Your task to perform on an android device: open app "Viber Messenger" (install if not already installed) Image 0: 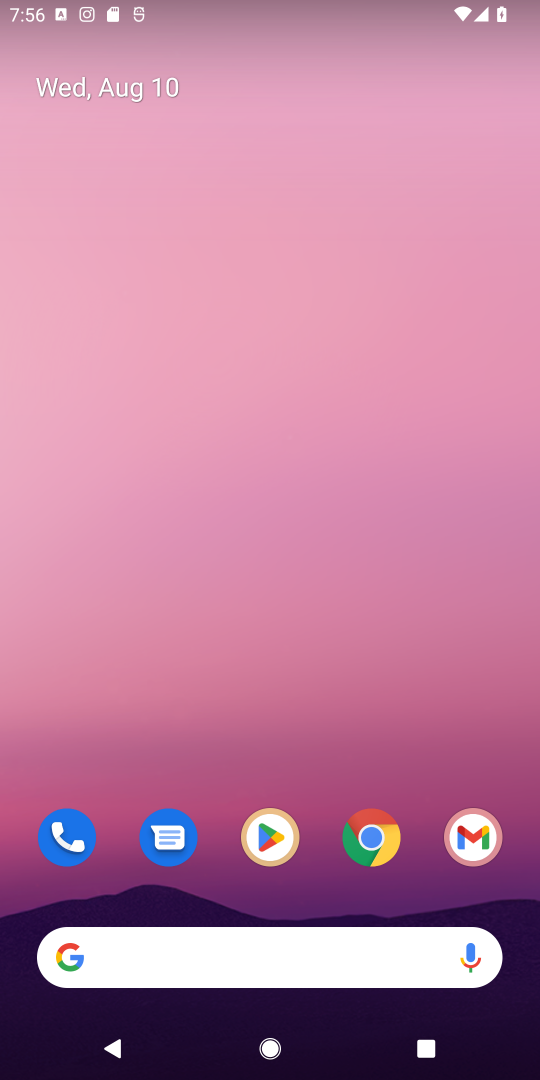
Step 0: click (262, 838)
Your task to perform on an android device: open app "Viber Messenger" (install if not already installed) Image 1: 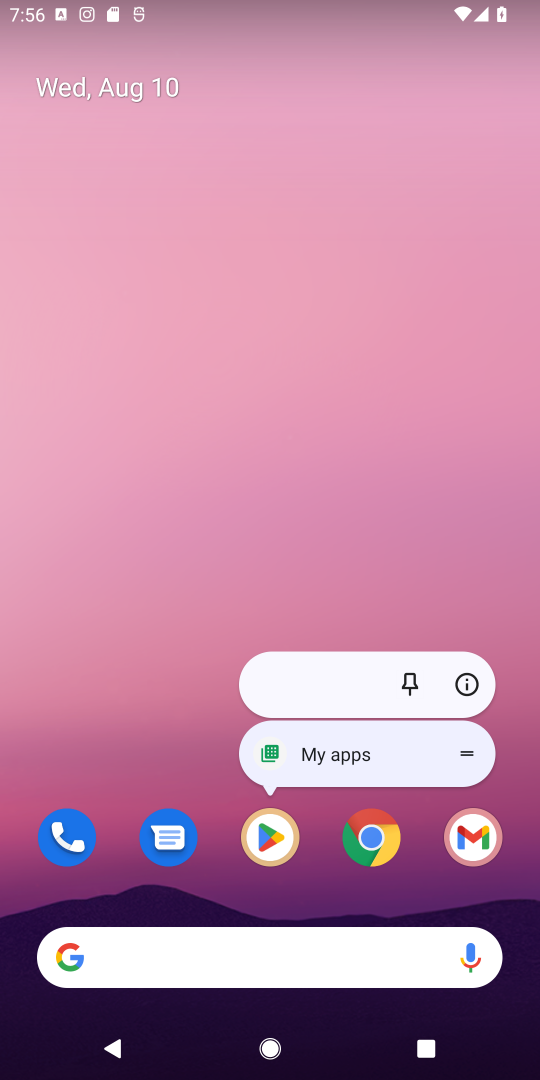
Step 1: click (262, 840)
Your task to perform on an android device: open app "Viber Messenger" (install if not already installed) Image 2: 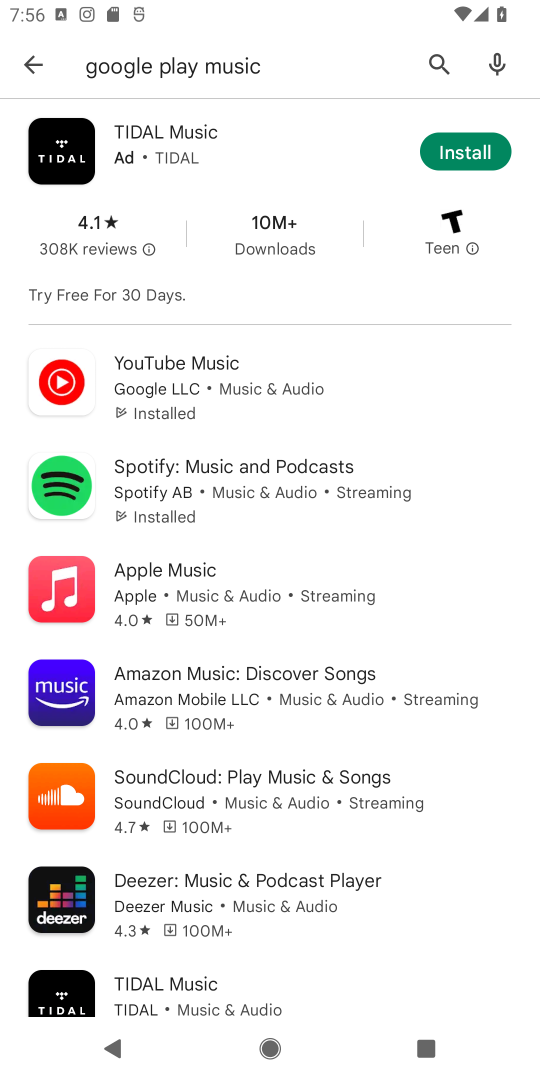
Step 2: click (434, 59)
Your task to perform on an android device: open app "Viber Messenger" (install if not already installed) Image 3: 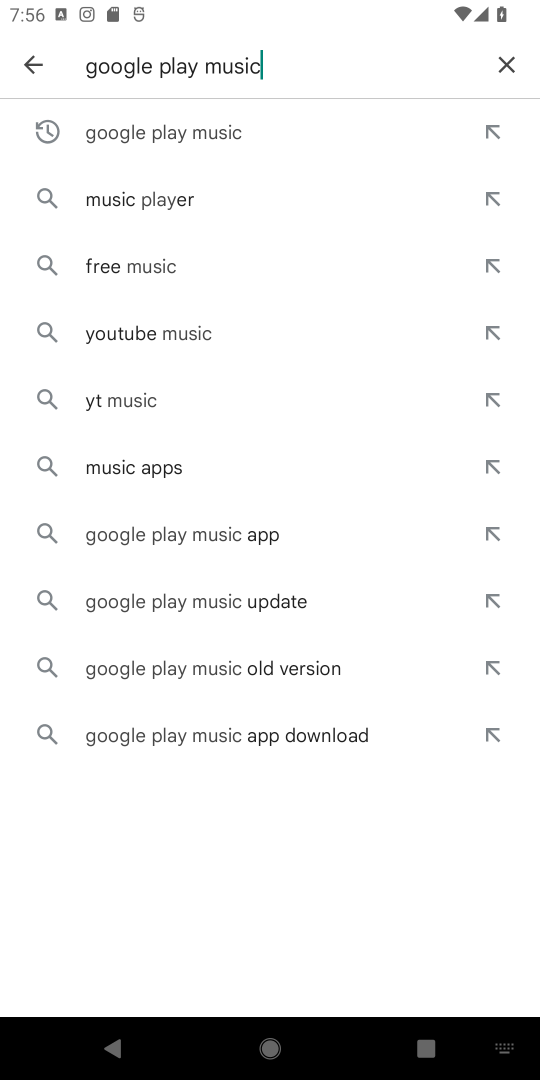
Step 3: click (515, 60)
Your task to perform on an android device: open app "Viber Messenger" (install if not already installed) Image 4: 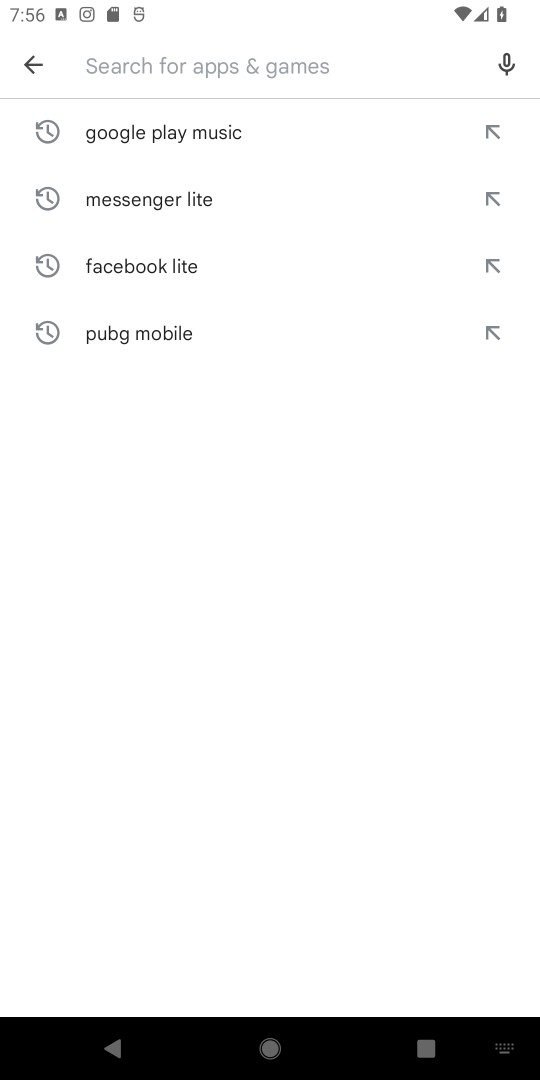
Step 4: type "Viber Messenger"
Your task to perform on an android device: open app "Viber Messenger" (install if not already installed) Image 5: 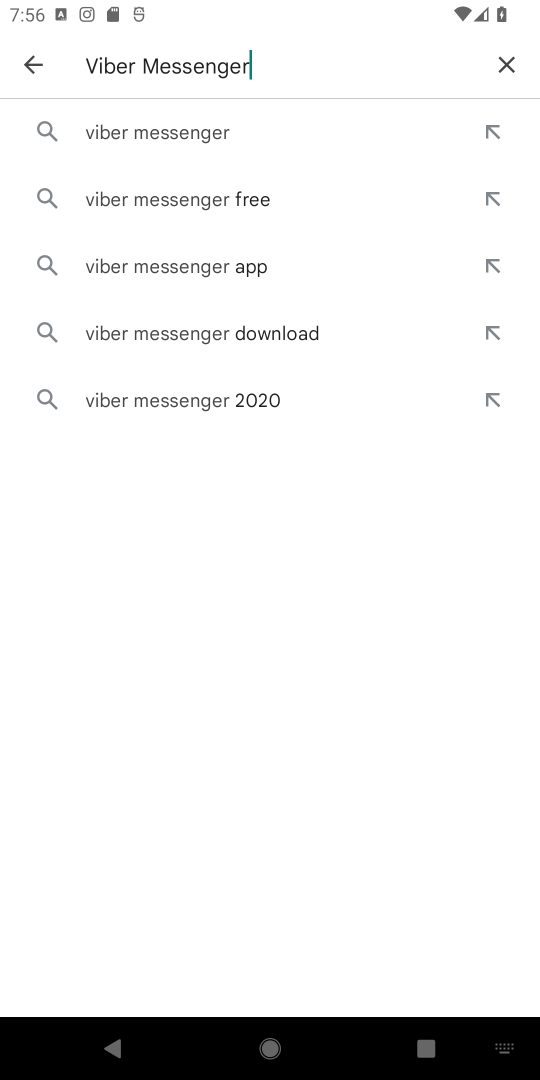
Step 5: click (209, 128)
Your task to perform on an android device: open app "Viber Messenger" (install if not already installed) Image 6: 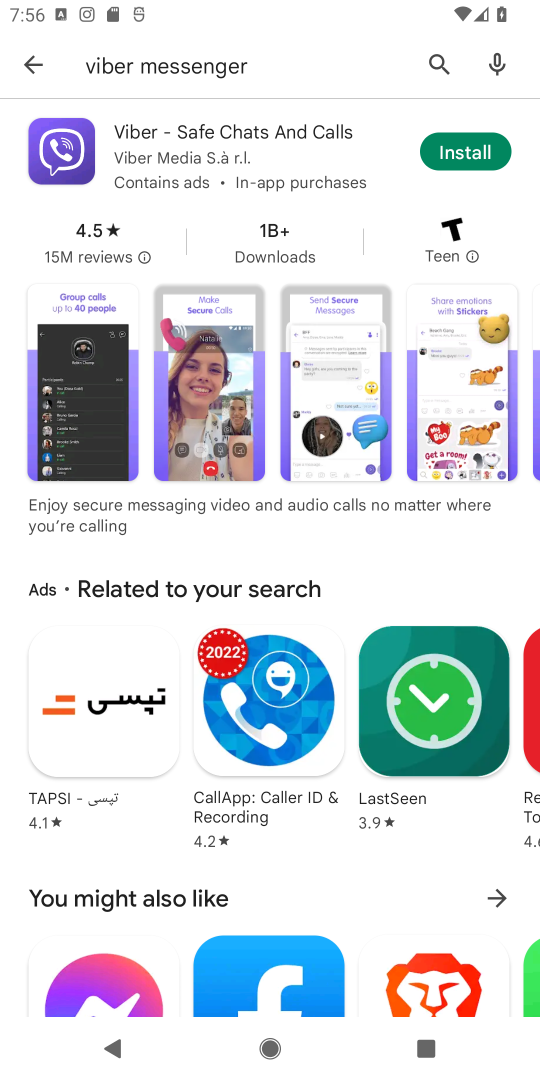
Step 6: click (483, 152)
Your task to perform on an android device: open app "Viber Messenger" (install if not already installed) Image 7: 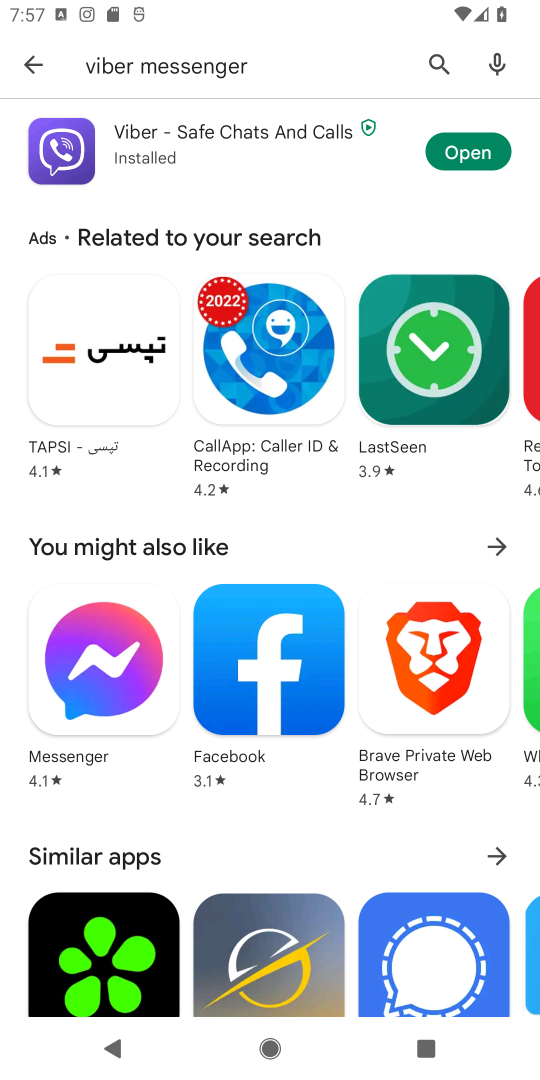
Step 7: click (492, 156)
Your task to perform on an android device: open app "Viber Messenger" (install if not already installed) Image 8: 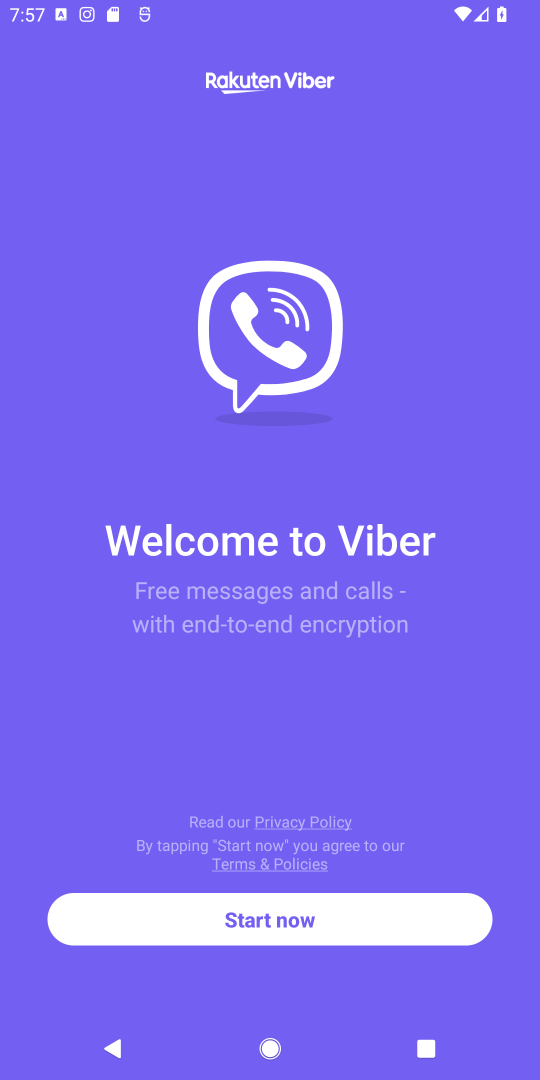
Step 8: task complete